Your task to perform on an android device: Open Reddit.com Image 0: 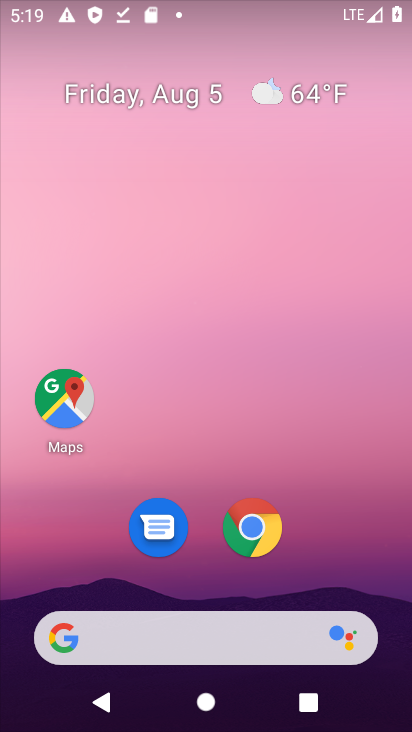
Step 0: drag from (166, 587) to (278, 214)
Your task to perform on an android device: Open Reddit.com Image 1: 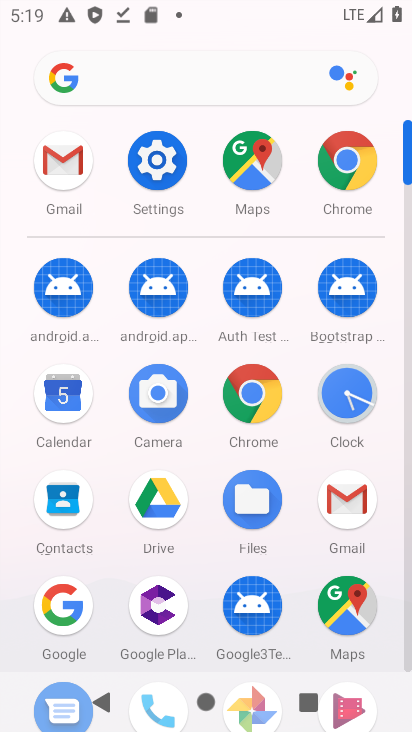
Step 1: click (157, 69)
Your task to perform on an android device: Open Reddit.com Image 2: 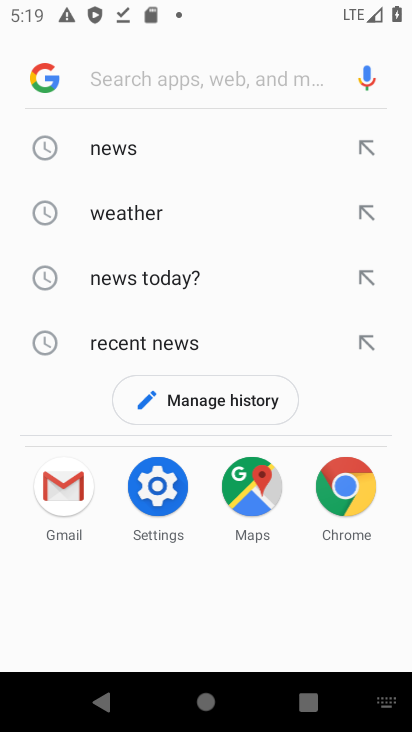
Step 2: type "Reddit.com"
Your task to perform on an android device: Open Reddit.com Image 3: 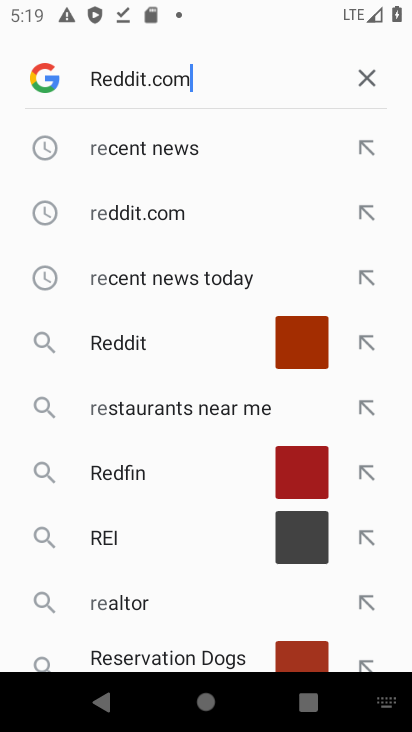
Step 3: type ""
Your task to perform on an android device: Open Reddit.com Image 4: 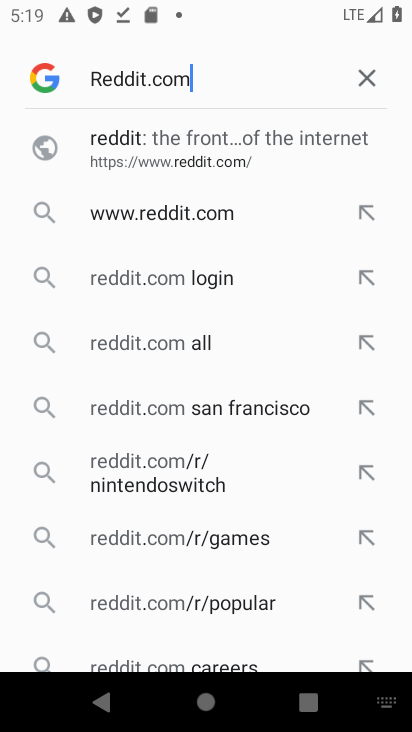
Step 4: click (109, 151)
Your task to perform on an android device: Open Reddit.com Image 5: 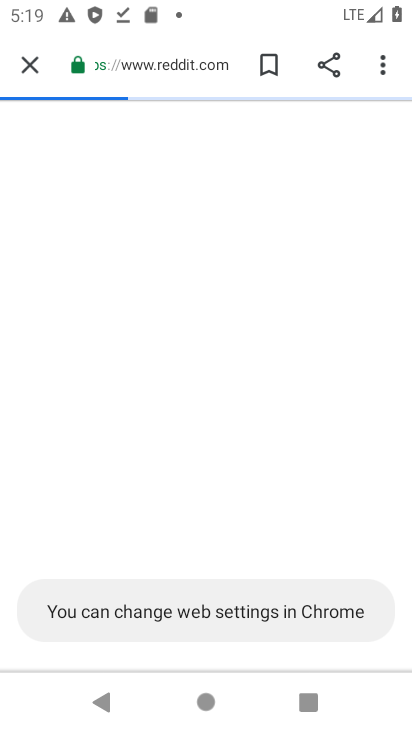
Step 5: task complete